Your task to perform on an android device: Open sound settings Image 0: 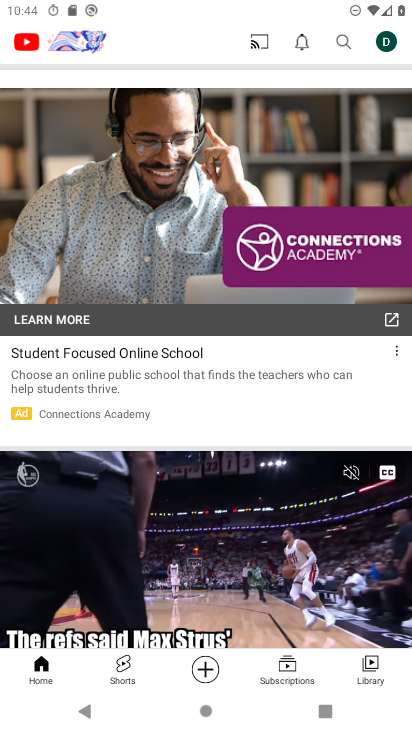
Step 0: press home button
Your task to perform on an android device: Open sound settings Image 1: 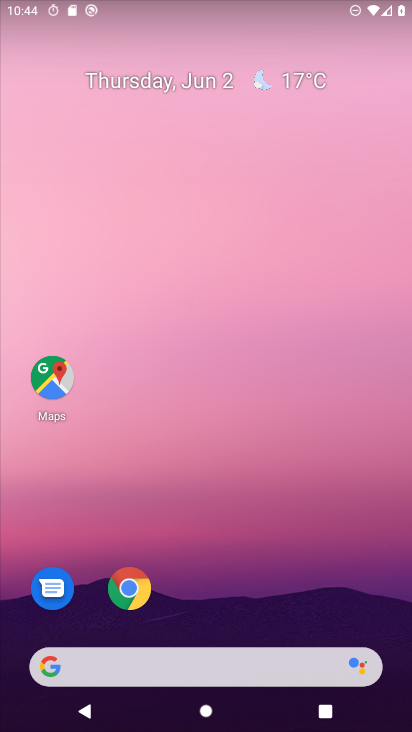
Step 1: drag from (210, 659) to (281, 172)
Your task to perform on an android device: Open sound settings Image 2: 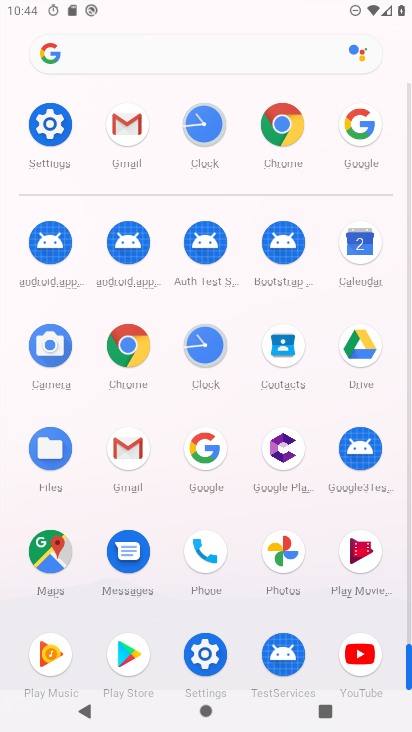
Step 2: click (54, 145)
Your task to perform on an android device: Open sound settings Image 3: 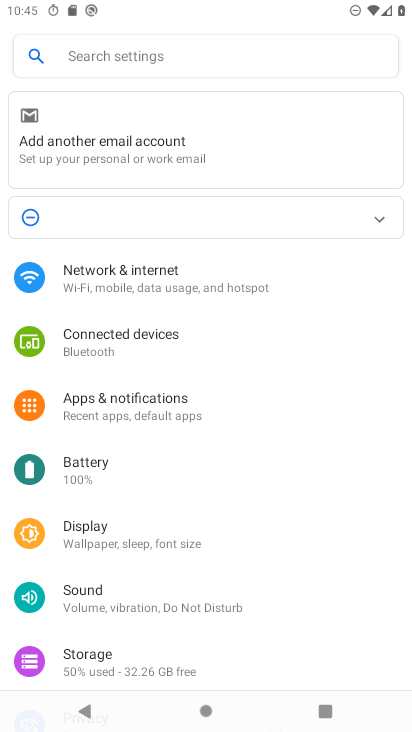
Step 3: click (167, 593)
Your task to perform on an android device: Open sound settings Image 4: 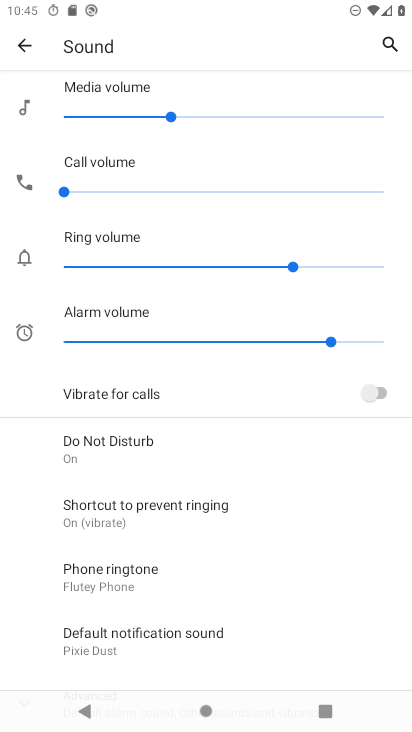
Step 4: task complete